Your task to perform on an android device: Open settings on Google Maps Image 0: 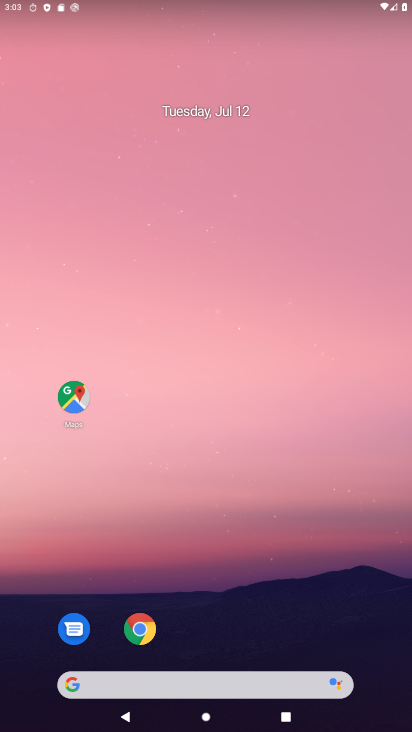
Step 0: drag from (229, 572) to (282, 53)
Your task to perform on an android device: Open settings on Google Maps Image 1: 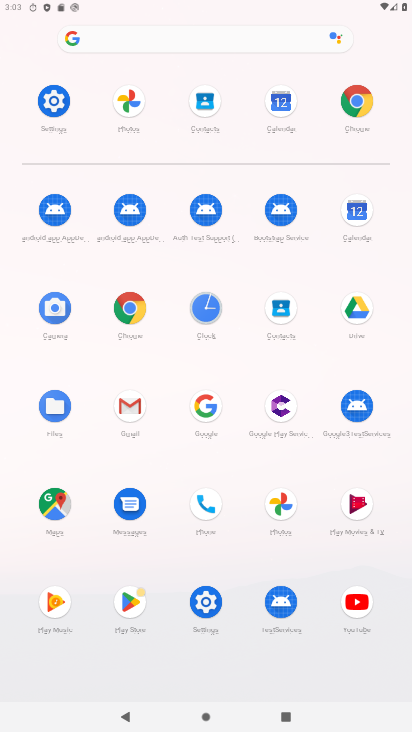
Step 1: click (55, 507)
Your task to perform on an android device: Open settings on Google Maps Image 2: 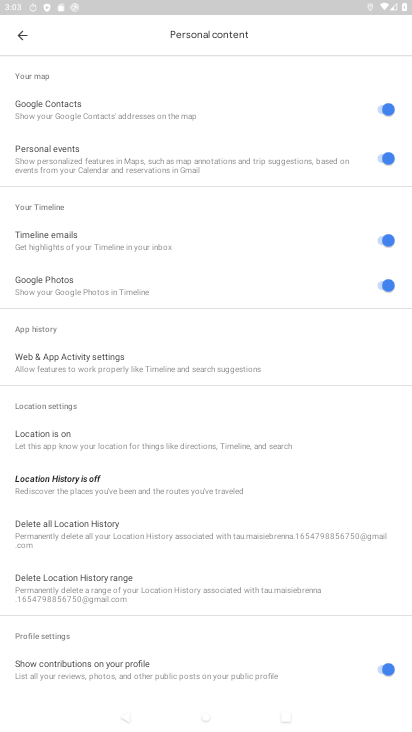
Step 2: drag from (160, 580) to (246, 213)
Your task to perform on an android device: Open settings on Google Maps Image 3: 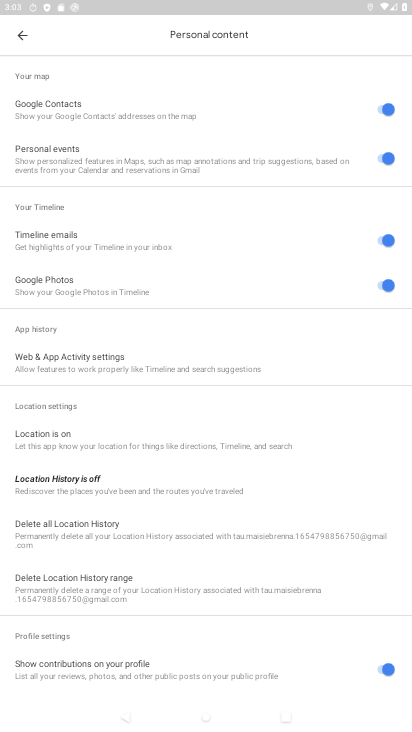
Step 3: click (21, 37)
Your task to perform on an android device: Open settings on Google Maps Image 4: 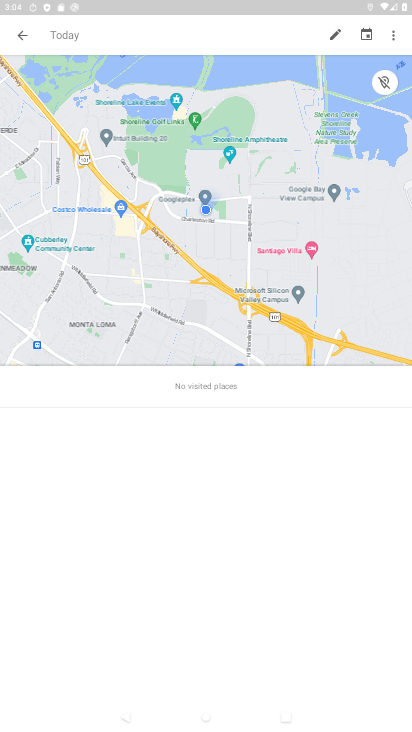
Step 4: click (21, 37)
Your task to perform on an android device: Open settings on Google Maps Image 5: 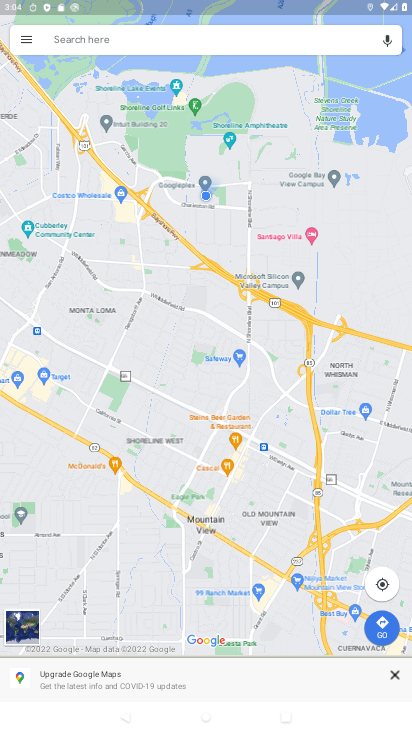
Step 5: click (21, 37)
Your task to perform on an android device: Open settings on Google Maps Image 6: 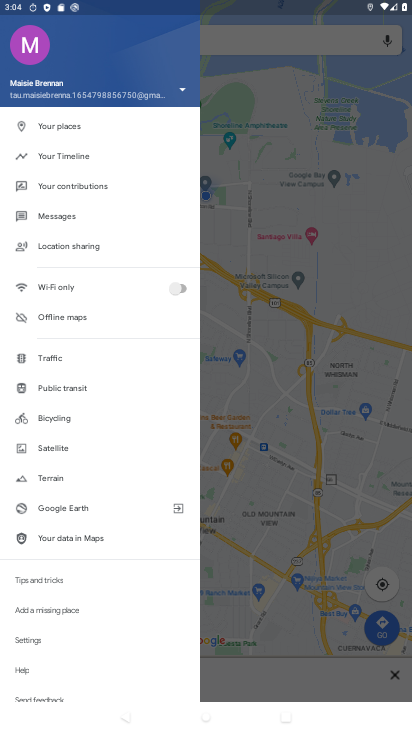
Step 6: click (16, 637)
Your task to perform on an android device: Open settings on Google Maps Image 7: 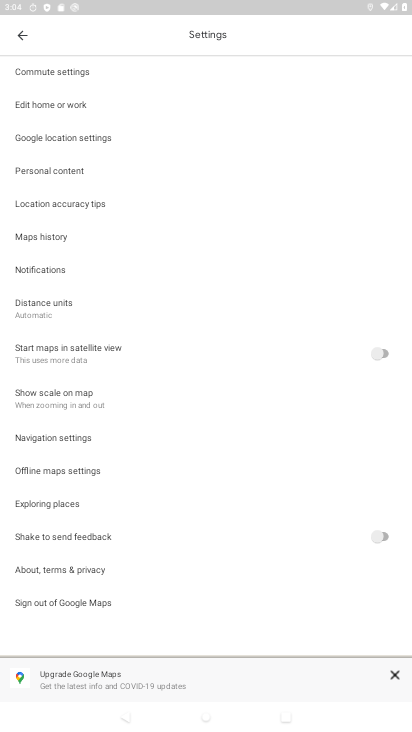
Step 7: task complete